Your task to perform on an android device: turn off smart reply in the gmail app Image 0: 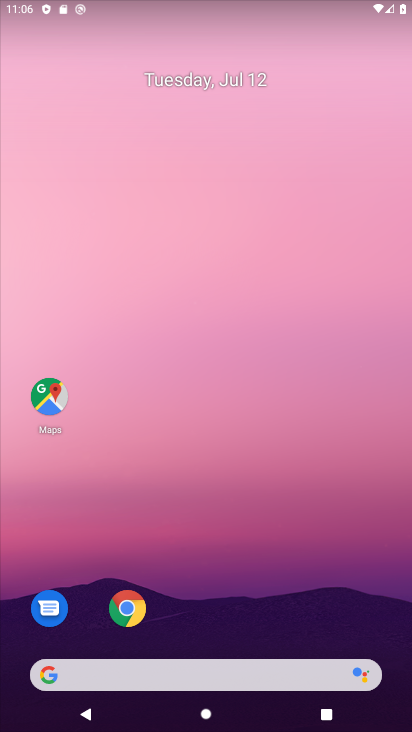
Step 0: drag from (186, 612) to (186, 52)
Your task to perform on an android device: turn off smart reply in the gmail app Image 1: 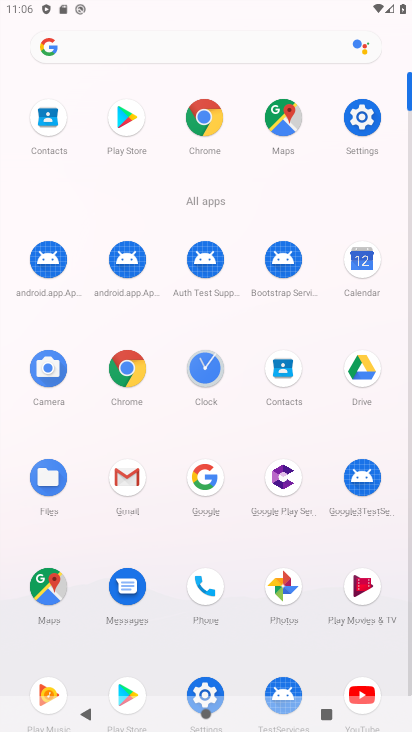
Step 1: click (127, 478)
Your task to perform on an android device: turn off smart reply in the gmail app Image 2: 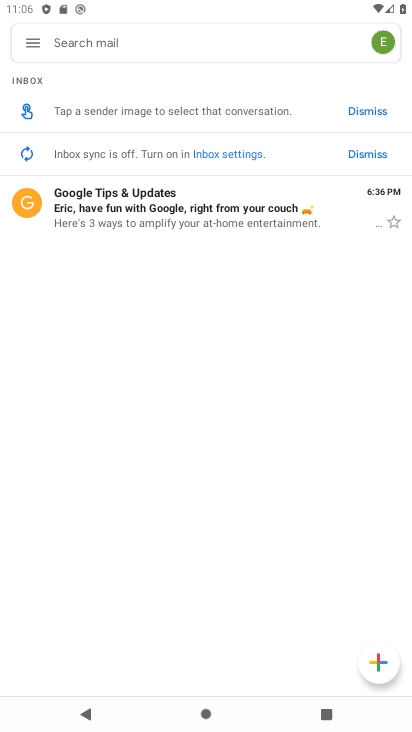
Step 2: click (31, 43)
Your task to perform on an android device: turn off smart reply in the gmail app Image 3: 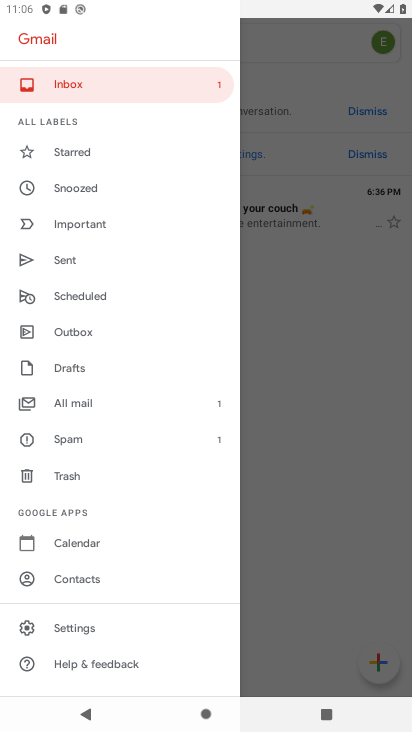
Step 3: click (79, 628)
Your task to perform on an android device: turn off smart reply in the gmail app Image 4: 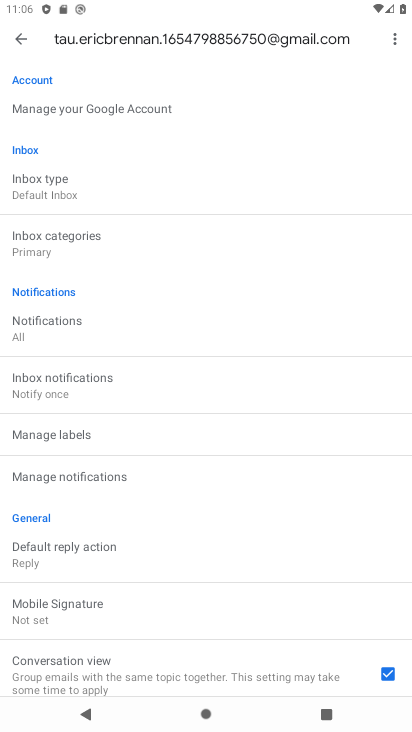
Step 4: drag from (110, 502) to (149, 97)
Your task to perform on an android device: turn off smart reply in the gmail app Image 5: 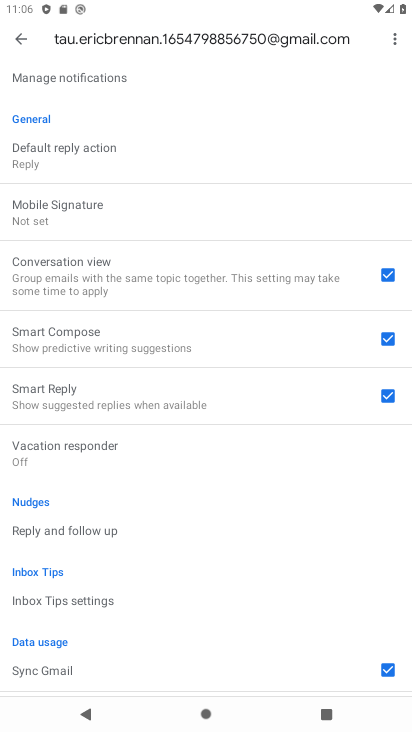
Step 5: click (391, 396)
Your task to perform on an android device: turn off smart reply in the gmail app Image 6: 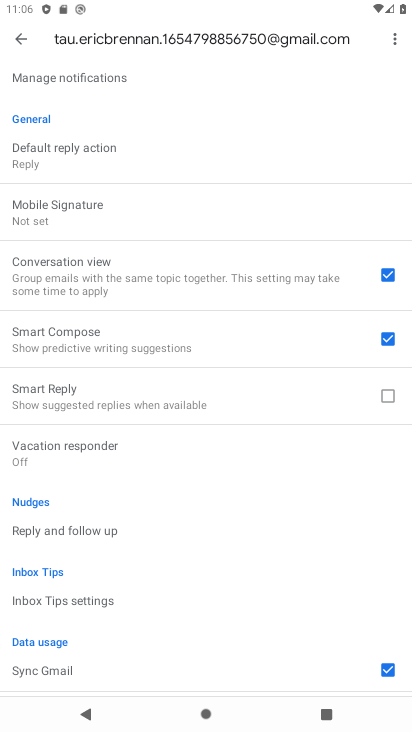
Step 6: task complete